Your task to perform on an android device: change keyboard looks Image 0: 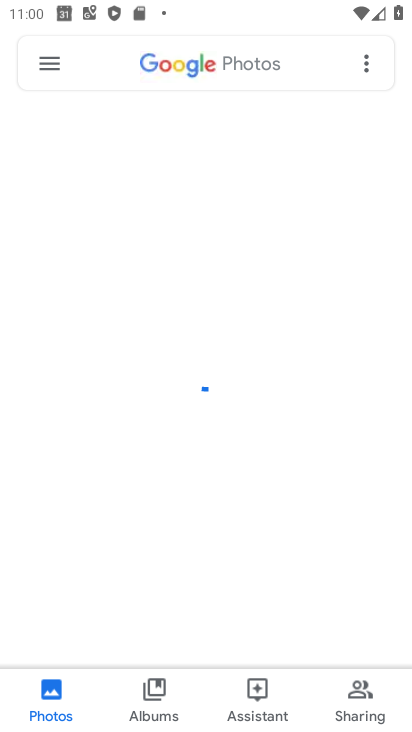
Step 0: click (313, 547)
Your task to perform on an android device: change keyboard looks Image 1: 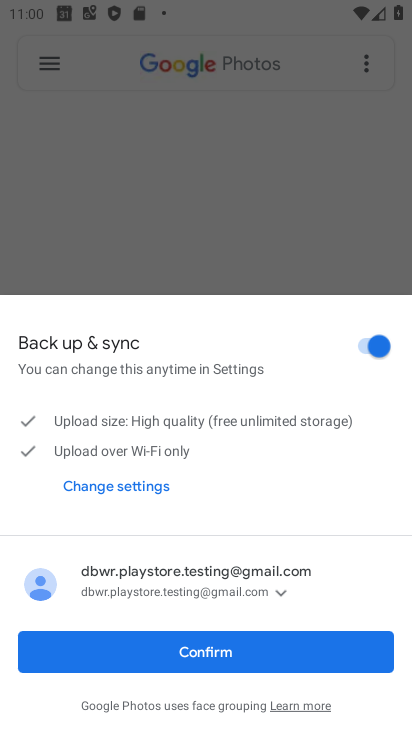
Step 1: press home button
Your task to perform on an android device: change keyboard looks Image 2: 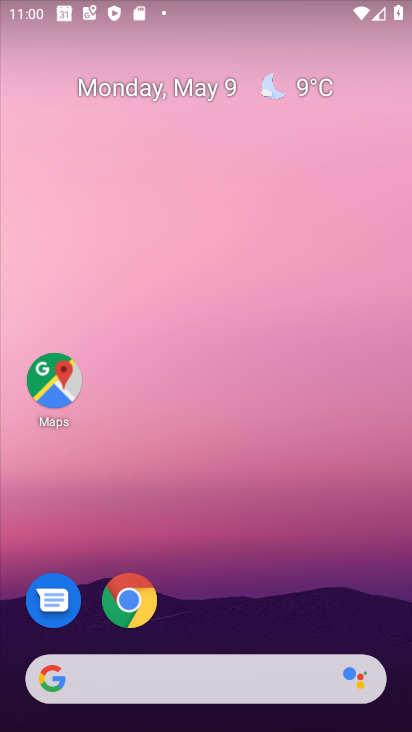
Step 2: drag from (304, 575) to (308, 213)
Your task to perform on an android device: change keyboard looks Image 3: 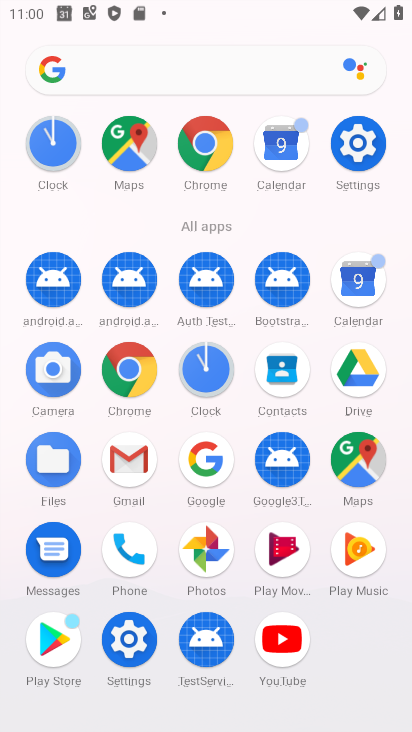
Step 3: click (326, 159)
Your task to perform on an android device: change keyboard looks Image 4: 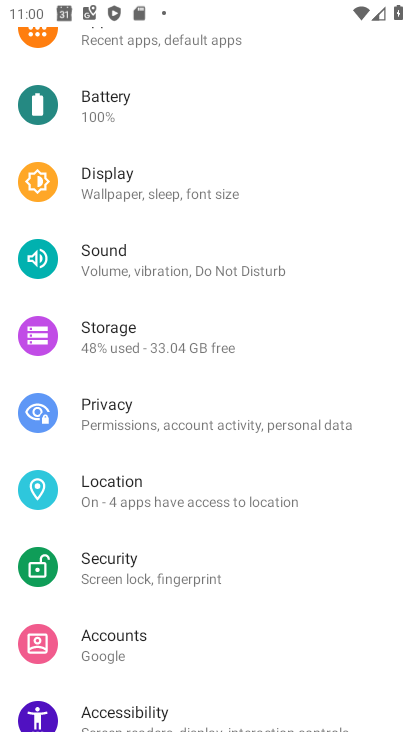
Step 4: drag from (252, 661) to (322, 175)
Your task to perform on an android device: change keyboard looks Image 5: 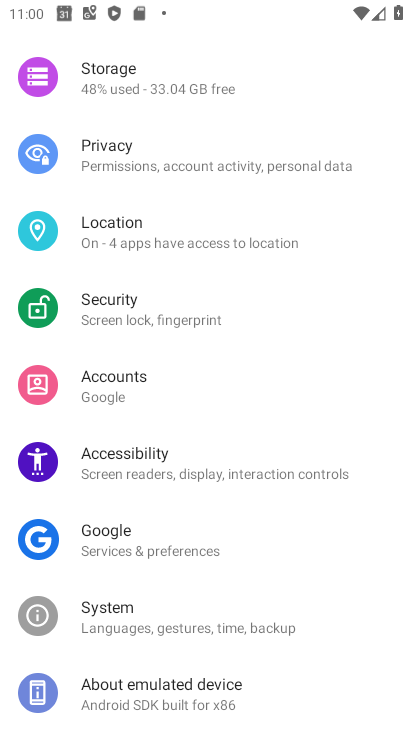
Step 5: click (200, 630)
Your task to perform on an android device: change keyboard looks Image 6: 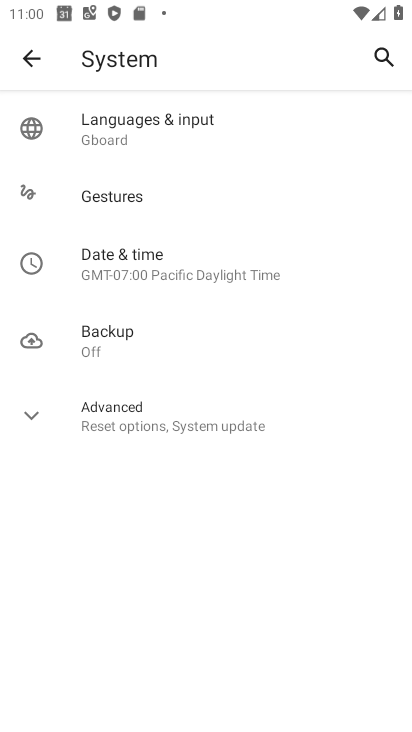
Step 6: click (139, 121)
Your task to perform on an android device: change keyboard looks Image 7: 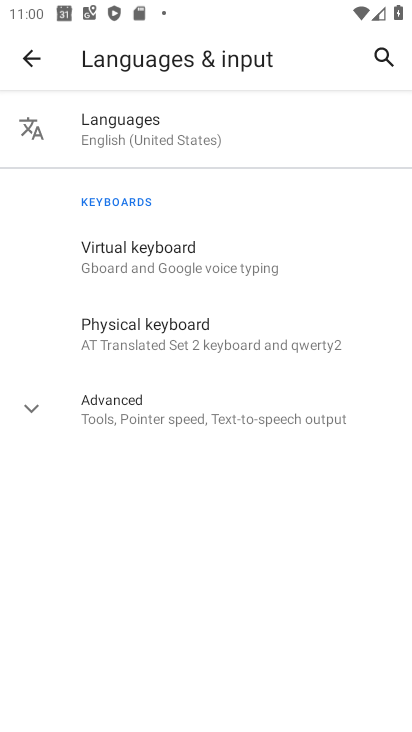
Step 7: click (162, 252)
Your task to perform on an android device: change keyboard looks Image 8: 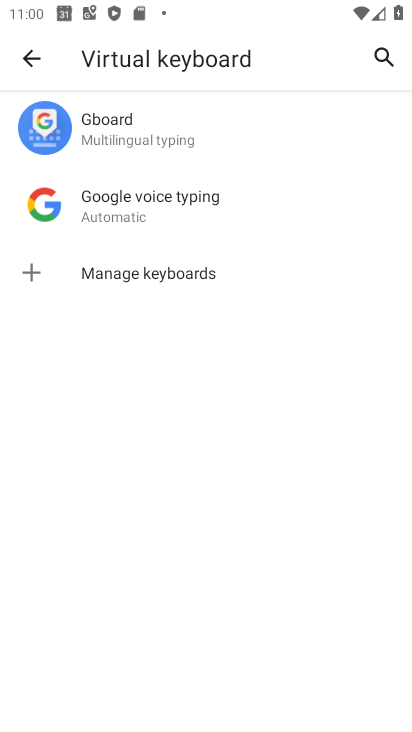
Step 8: click (166, 119)
Your task to perform on an android device: change keyboard looks Image 9: 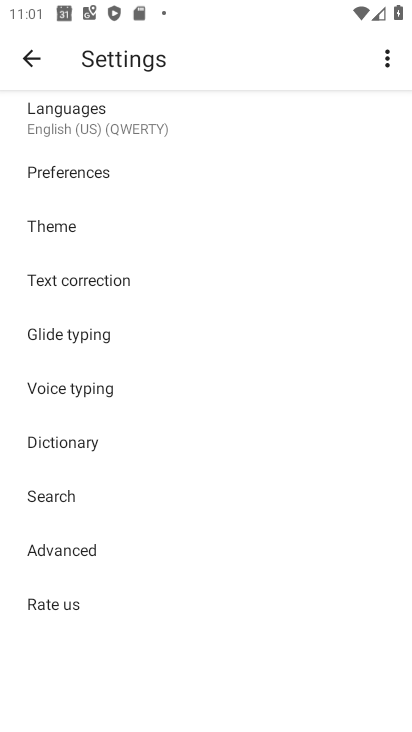
Step 9: click (59, 221)
Your task to perform on an android device: change keyboard looks Image 10: 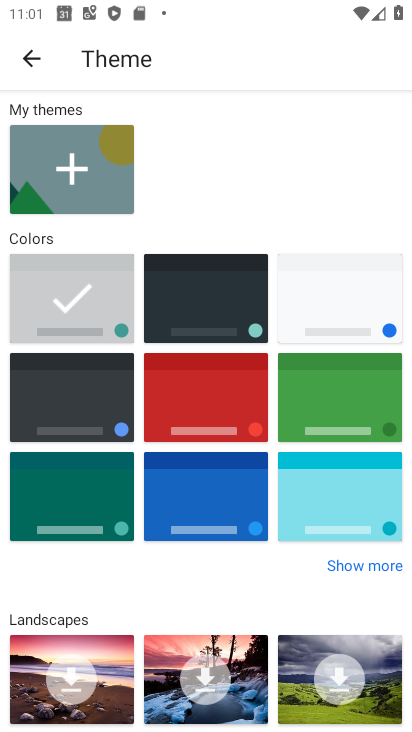
Step 10: click (197, 298)
Your task to perform on an android device: change keyboard looks Image 11: 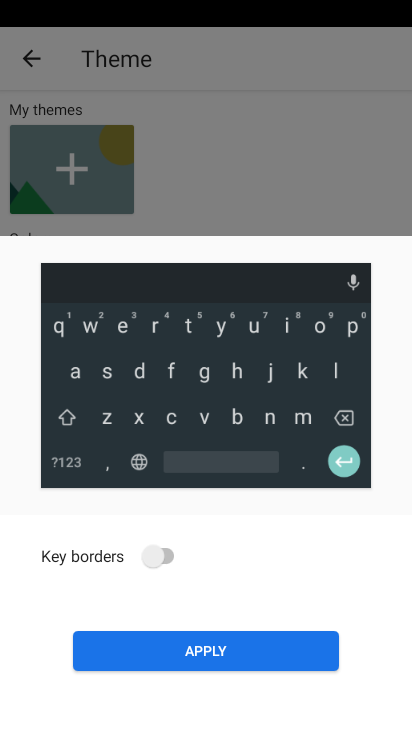
Step 11: click (220, 628)
Your task to perform on an android device: change keyboard looks Image 12: 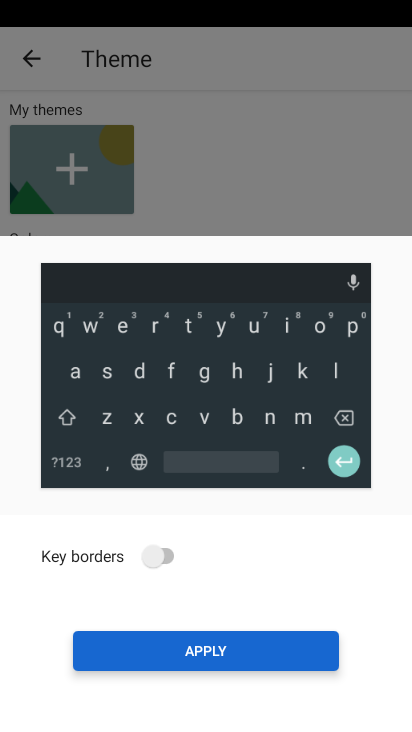
Step 12: click (221, 639)
Your task to perform on an android device: change keyboard looks Image 13: 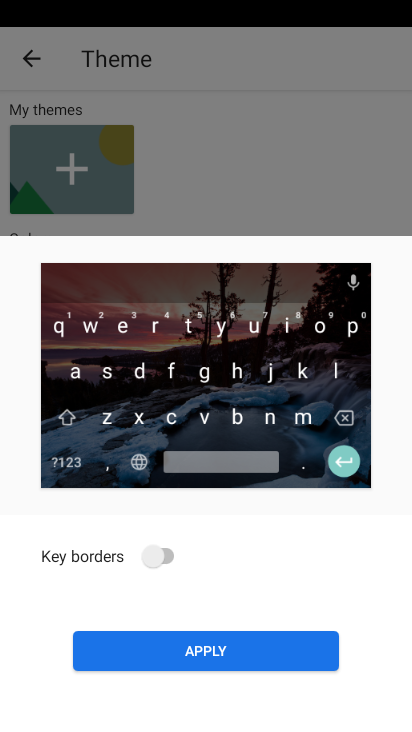
Step 13: task complete